Your task to perform on an android device: turn off wifi Image 0: 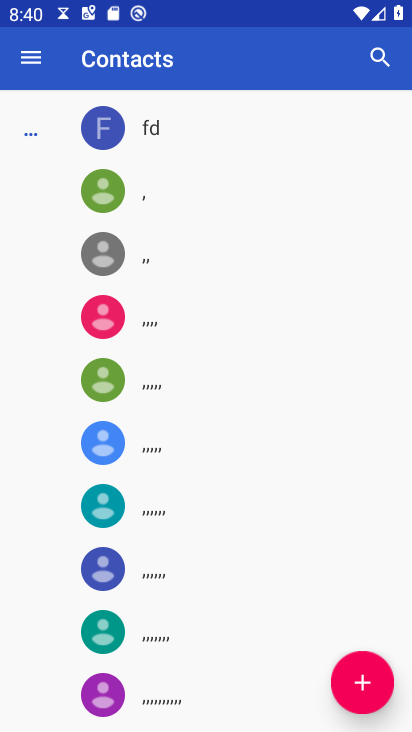
Step 0: press home button
Your task to perform on an android device: turn off wifi Image 1: 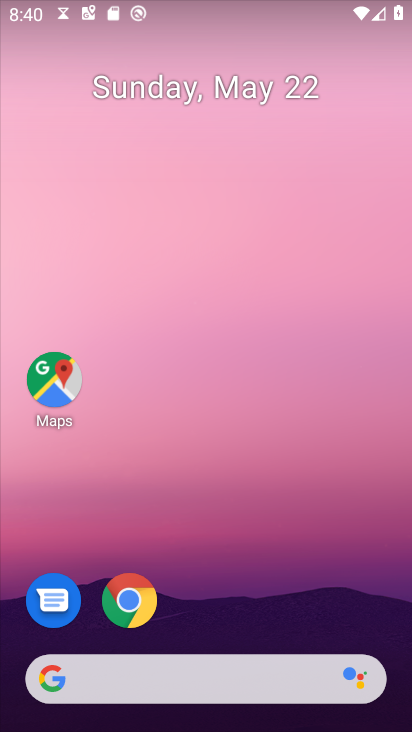
Step 1: drag from (212, 645) to (246, 436)
Your task to perform on an android device: turn off wifi Image 2: 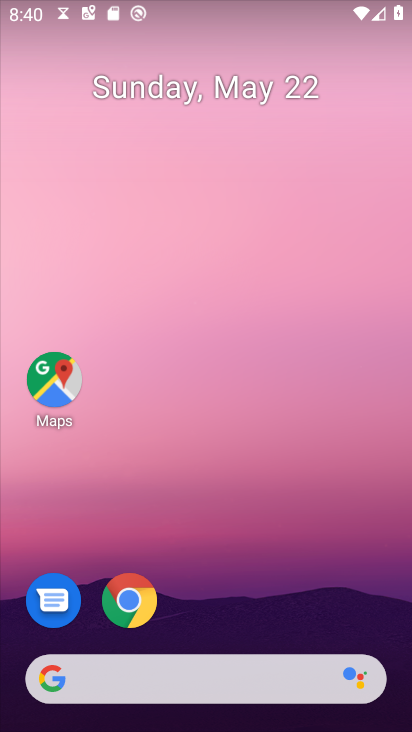
Step 2: drag from (211, 593) to (246, 307)
Your task to perform on an android device: turn off wifi Image 3: 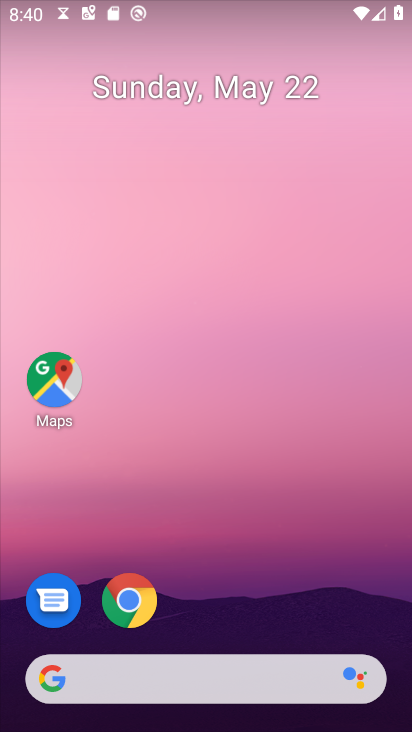
Step 3: drag from (225, 645) to (268, 176)
Your task to perform on an android device: turn off wifi Image 4: 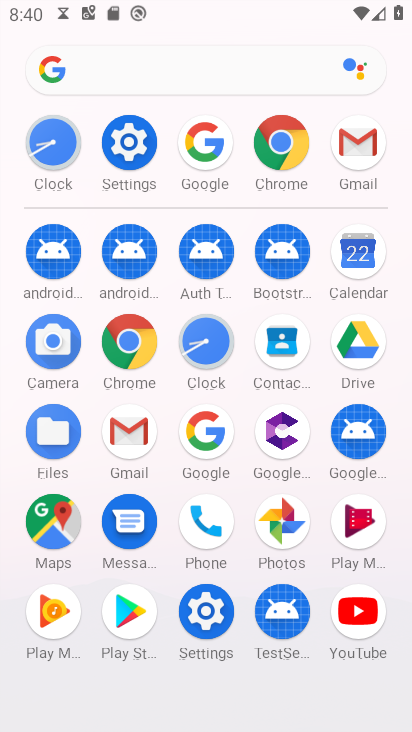
Step 4: click (125, 137)
Your task to perform on an android device: turn off wifi Image 5: 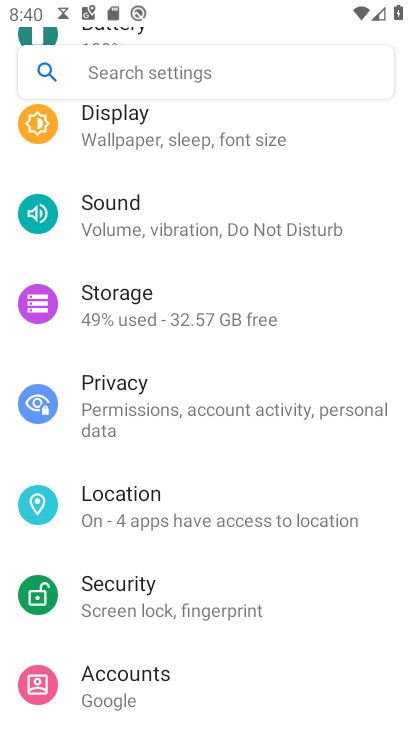
Step 5: drag from (169, 160) to (173, 622)
Your task to perform on an android device: turn off wifi Image 6: 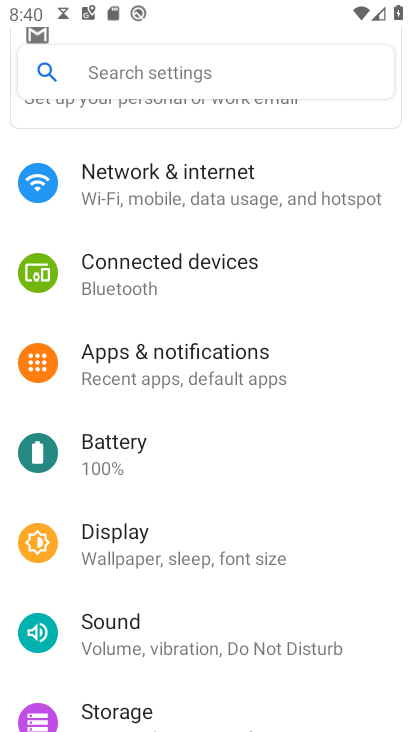
Step 6: click (157, 174)
Your task to perform on an android device: turn off wifi Image 7: 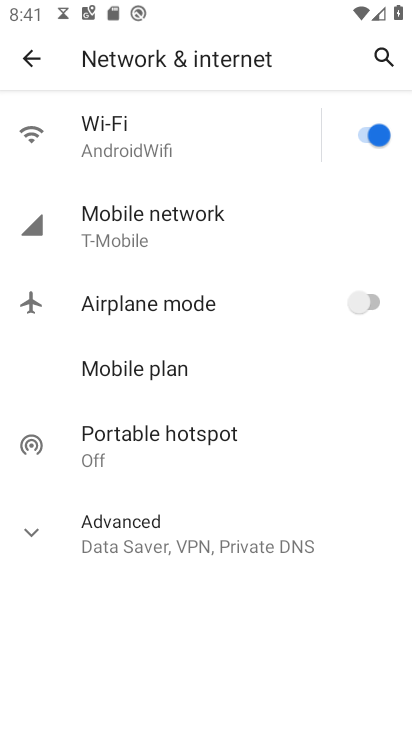
Step 7: click (367, 134)
Your task to perform on an android device: turn off wifi Image 8: 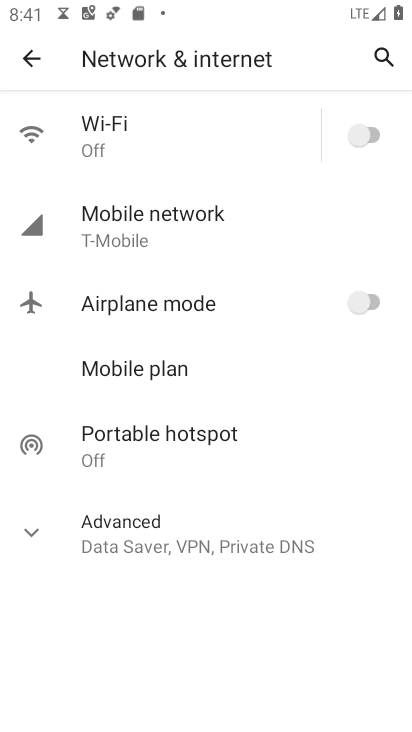
Step 8: task complete